Your task to perform on an android device: open wifi settings Image 0: 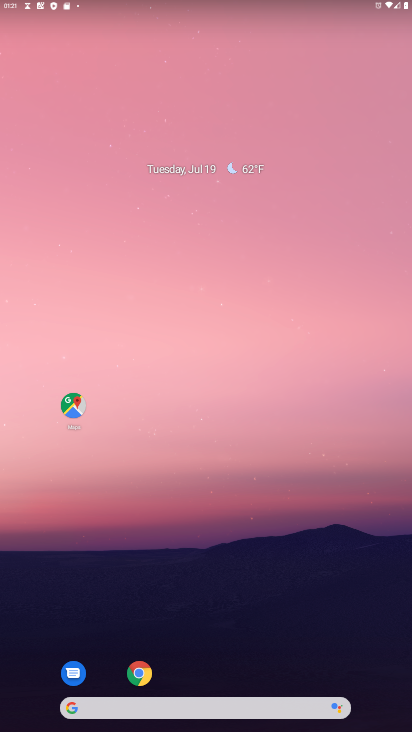
Step 0: drag from (206, 623) to (159, 297)
Your task to perform on an android device: open wifi settings Image 1: 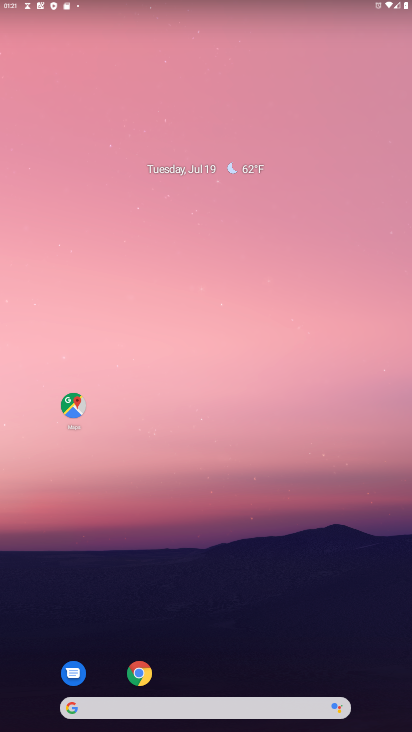
Step 1: drag from (251, 636) to (213, 2)
Your task to perform on an android device: open wifi settings Image 2: 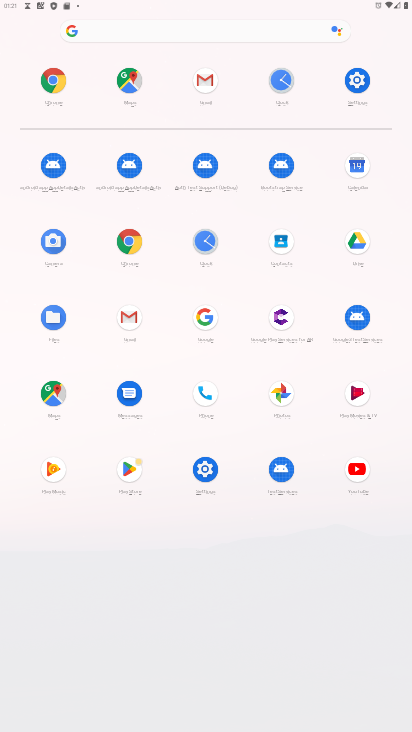
Step 2: click (362, 75)
Your task to perform on an android device: open wifi settings Image 3: 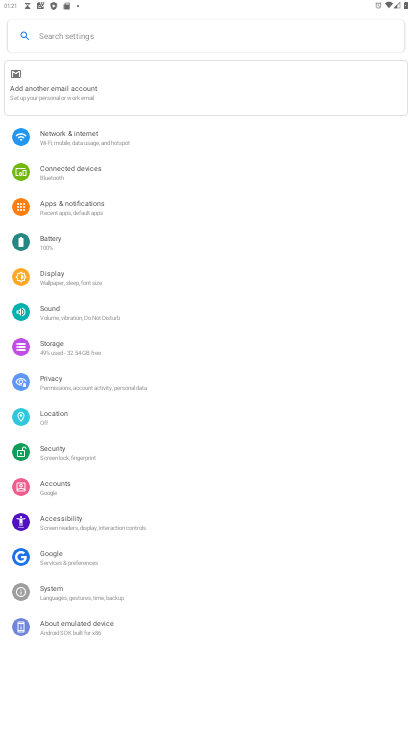
Step 3: click (65, 140)
Your task to perform on an android device: open wifi settings Image 4: 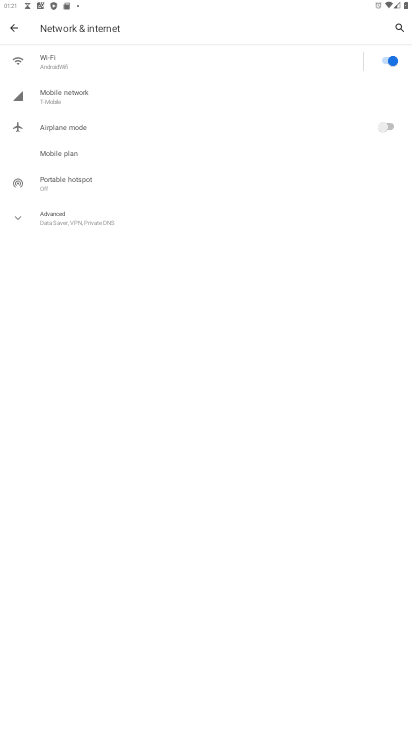
Step 4: click (56, 56)
Your task to perform on an android device: open wifi settings Image 5: 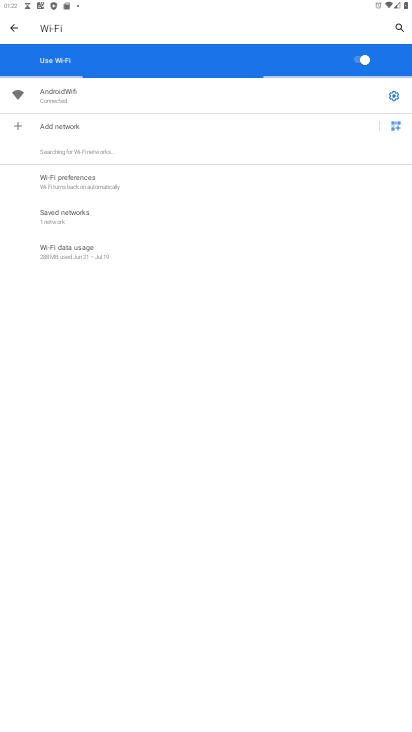
Step 5: task complete